Your task to perform on an android device: When is my next meeting? Image 0: 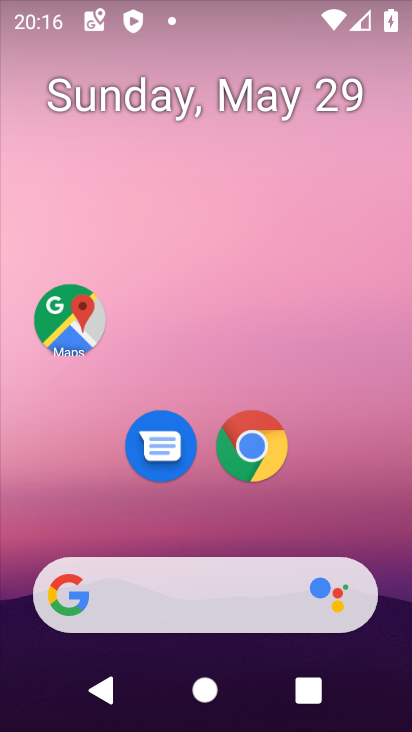
Step 0: drag from (196, 593) to (285, 224)
Your task to perform on an android device: When is my next meeting? Image 1: 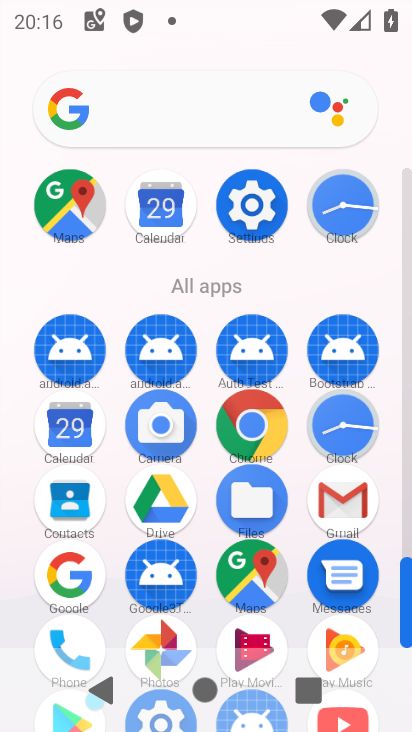
Step 1: click (74, 433)
Your task to perform on an android device: When is my next meeting? Image 2: 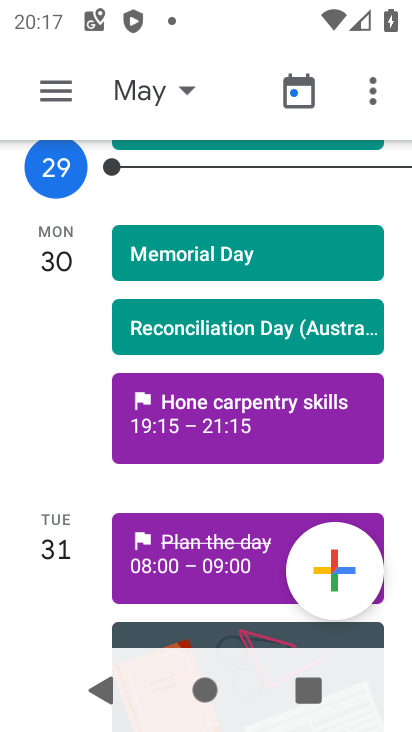
Step 2: click (59, 94)
Your task to perform on an android device: When is my next meeting? Image 3: 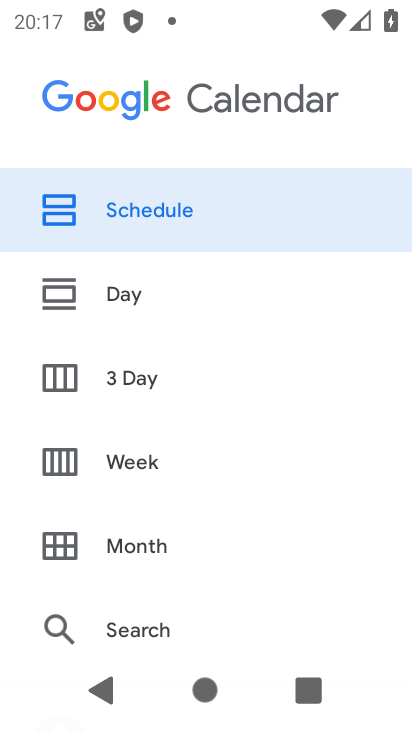
Step 3: click (98, 187)
Your task to perform on an android device: When is my next meeting? Image 4: 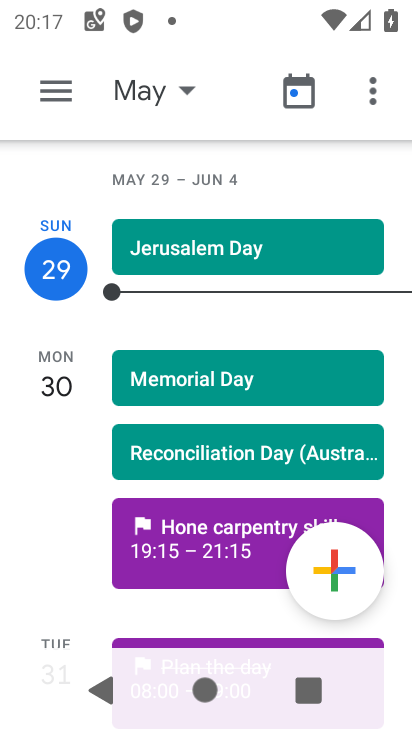
Step 4: task complete